Your task to perform on an android device: Go to Maps Image 0: 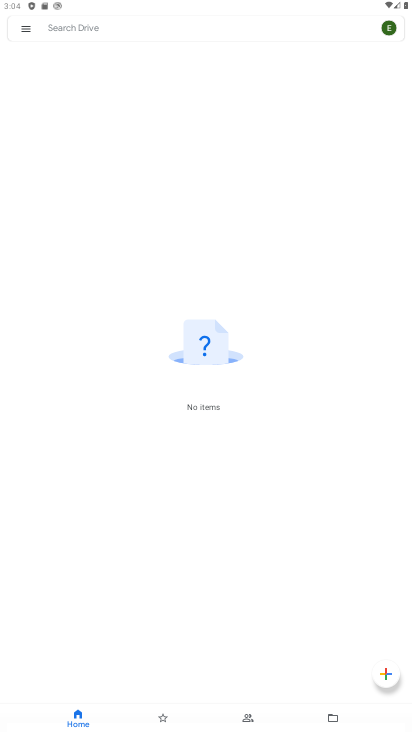
Step 0: press home button
Your task to perform on an android device: Go to Maps Image 1: 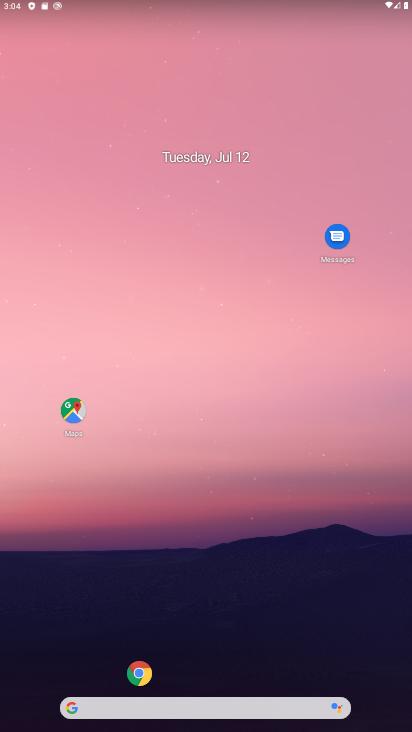
Step 1: click (82, 421)
Your task to perform on an android device: Go to Maps Image 2: 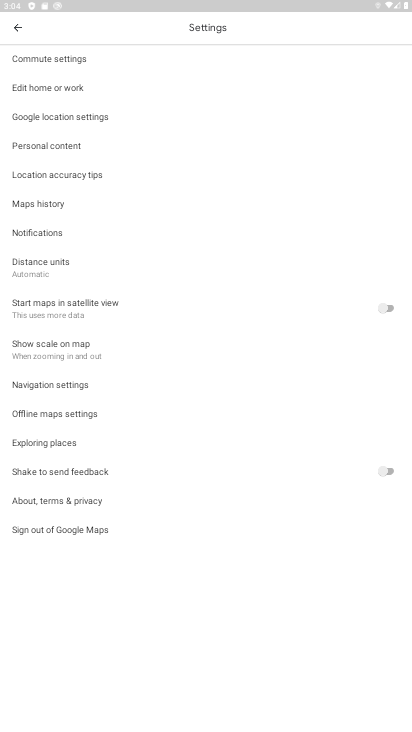
Step 2: click (12, 22)
Your task to perform on an android device: Go to Maps Image 3: 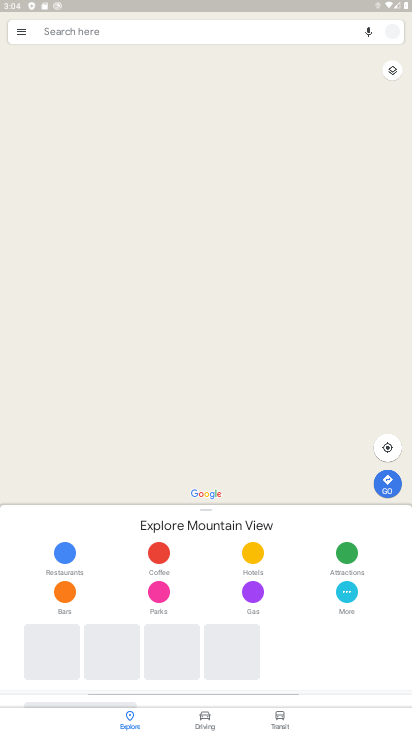
Step 3: click (22, 29)
Your task to perform on an android device: Go to Maps Image 4: 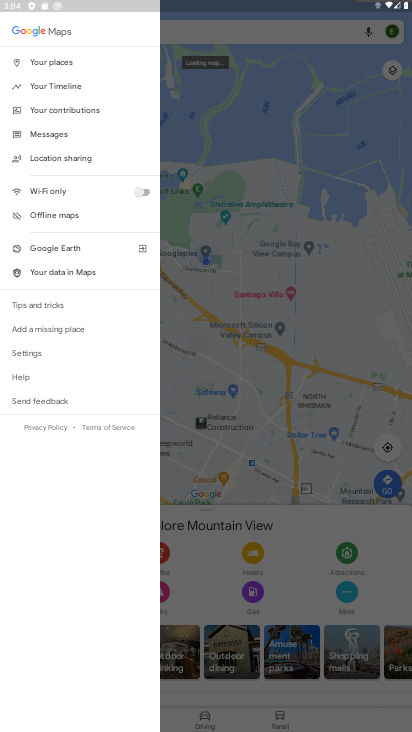
Step 4: click (201, 94)
Your task to perform on an android device: Go to Maps Image 5: 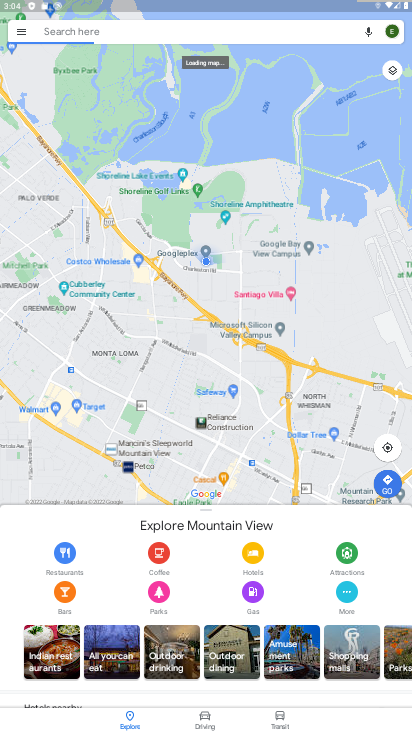
Step 5: task complete